Your task to perform on an android device: delete browsing data in the chrome app Image 0: 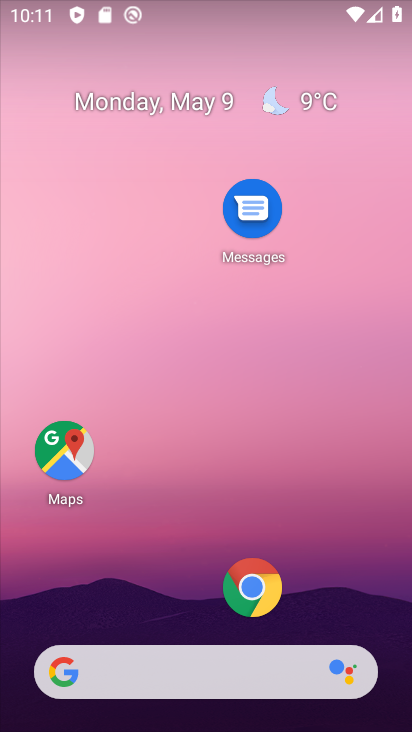
Step 0: drag from (206, 552) to (197, 132)
Your task to perform on an android device: delete browsing data in the chrome app Image 1: 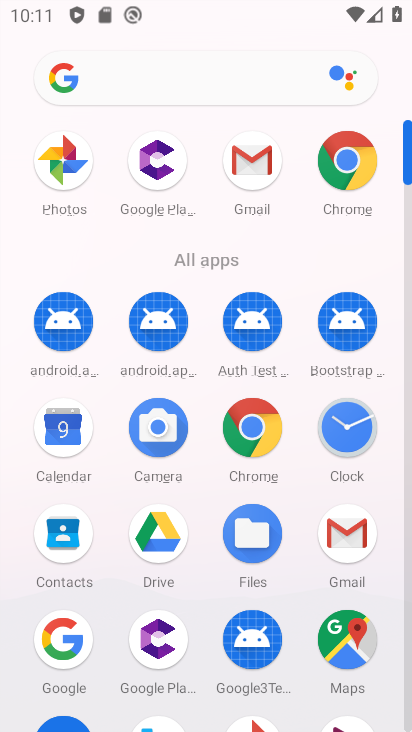
Step 1: click (336, 166)
Your task to perform on an android device: delete browsing data in the chrome app Image 2: 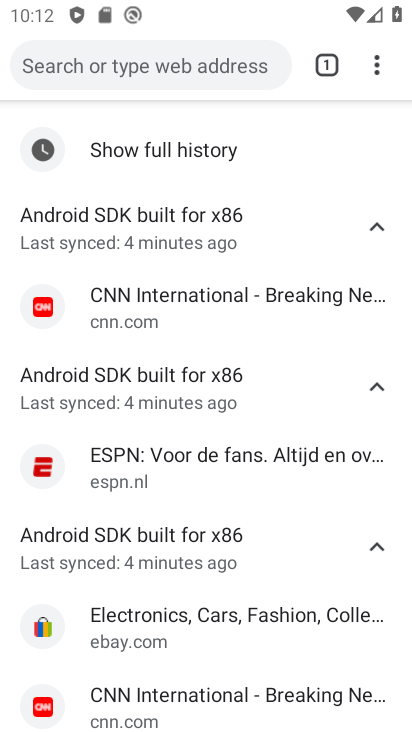
Step 2: drag from (379, 66) to (191, 363)
Your task to perform on an android device: delete browsing data in the chrome app Image 3: 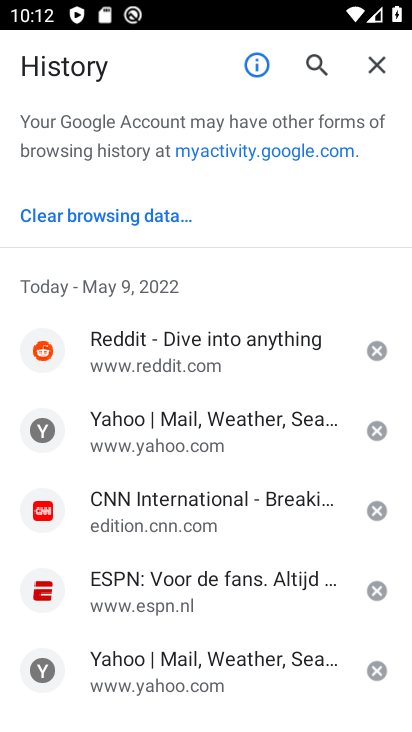
Step 3: click (84, 219)
Your task to perform on an android device: delete browsing data in the chrome app Image 4: 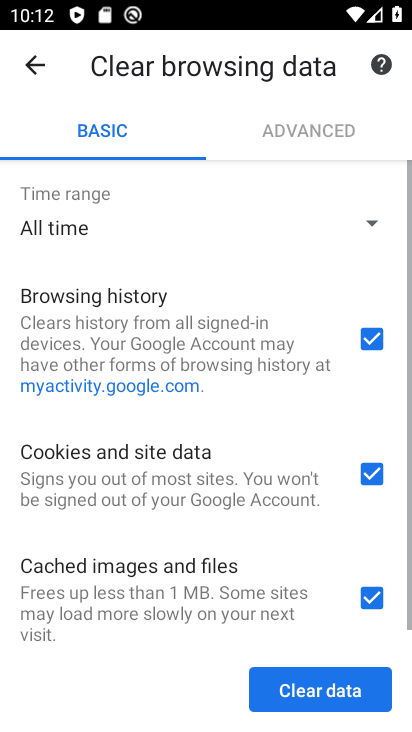
Step 4: drag from (189, 513) to (224, 143)
Your task to perform on an android device: delete browsing data in the chrome app Image 5: 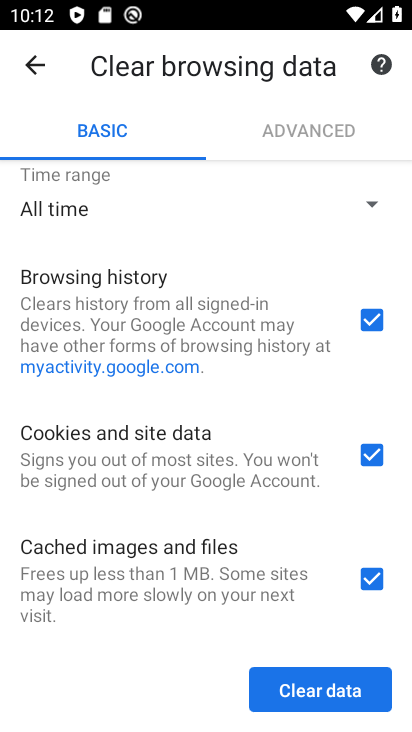
Step 5: click (288, 688)
Your task to perform on an android device: delete browsing data in the chrome app Image 6: 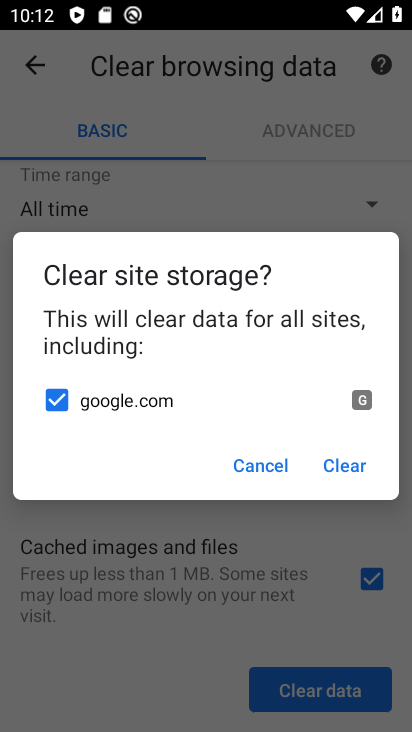
Step 6: click (341, 487)
Your task to perform on an android device: delete browsing data in the chrome app Image 7: 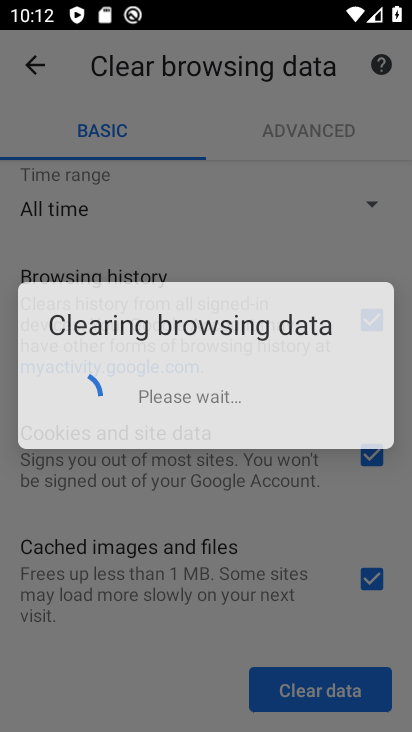
Step 7: click (342, 477)
Your task to perform on an android device: delete browsing data in the chrome app Image 8: 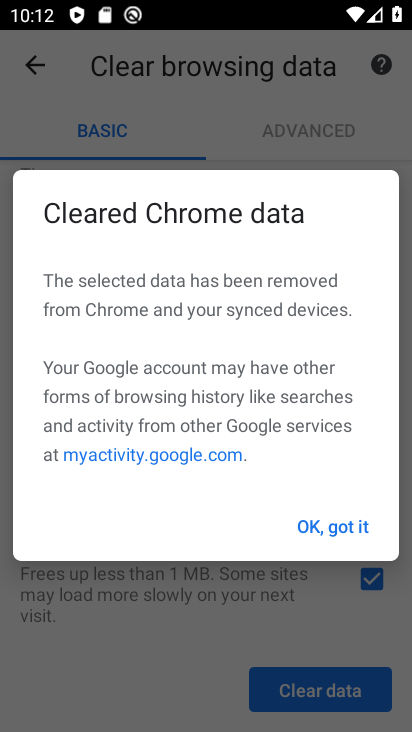
Step 8: click (348, 520)
Your task to perform on an android device: delete browsing data in the chrome app Image 9: 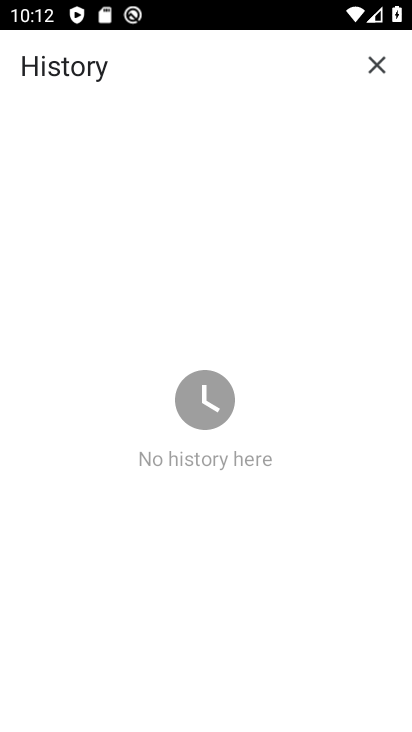
Step 9: task complete